Your task to perform on an android device: turn on showing notifications on the lock screen Image 0: 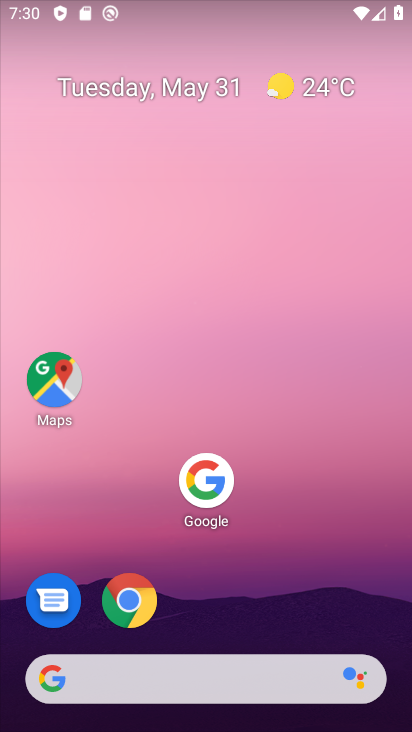
Step 0: drag from (214, 681) to (305, 95)
Your task to perform on an android device: turn on showing notifications on the lock screen Image 1: 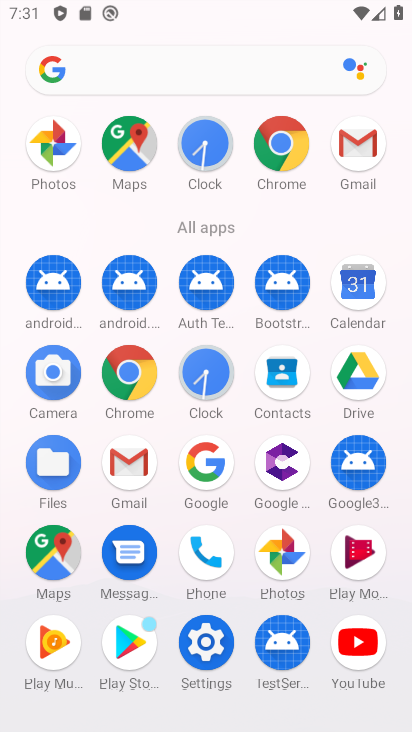
Step 1: click (212, 638)
Your task to perform on an android device: turn on showing notifications on the lock screen Image 2: 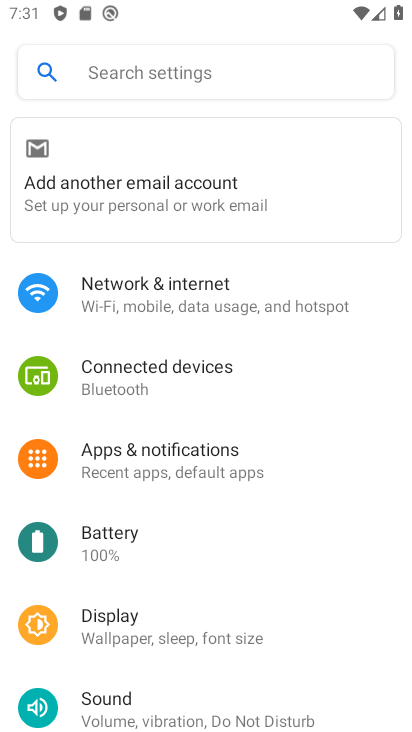
Step 2: click (186, 459)
Your task to perform on an android device: turn on showing notifications on the lock screen Image 3: 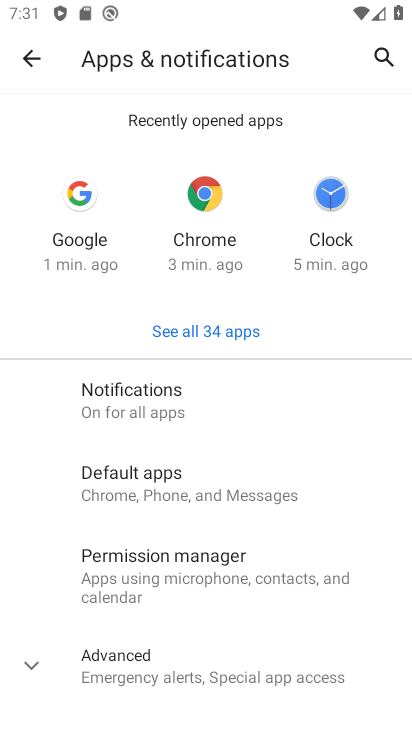
Step 3: click (143, 415)
Your task to perform on an android device: turn on showing notifications on the lock screen Image 4: 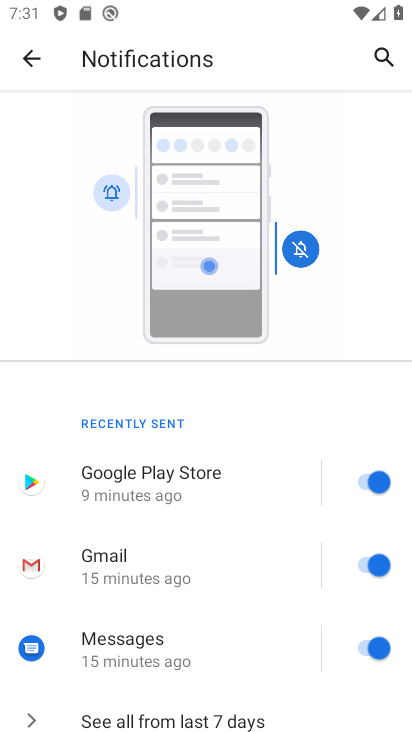
Step 4: drag from (199, 508) to (262, 86)
Your task to perform on an android device: turn on showing notifications on the lock screen Image 5: 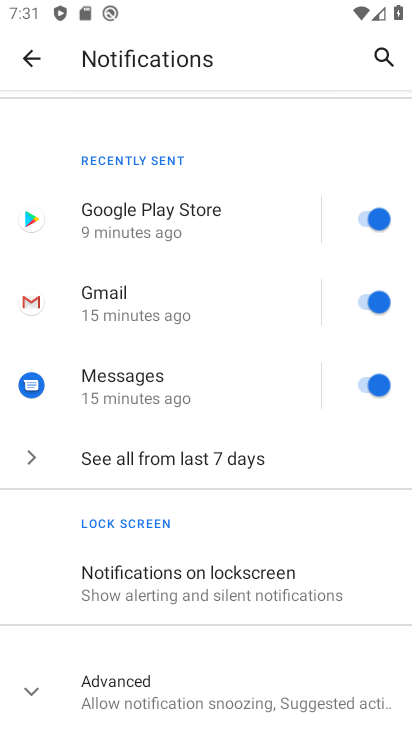
Step 5: click (174, 580)
Your task to perform on an android device: turn on showing notifications on the lock screen Image 6: 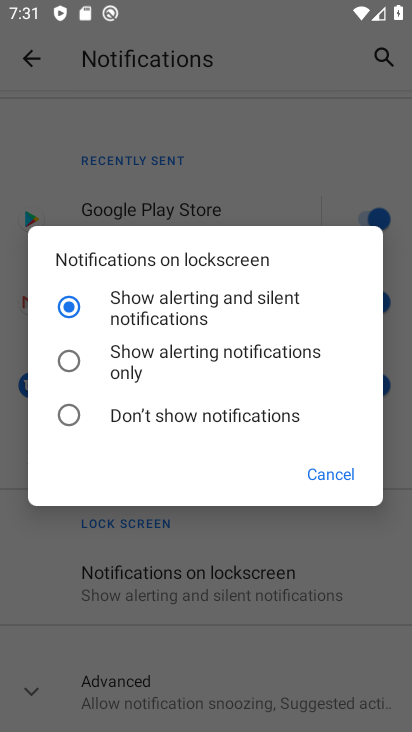
Step 6: task complete